Your task to perform on an android device: Open calendar and show me the first week of next month Image 0: 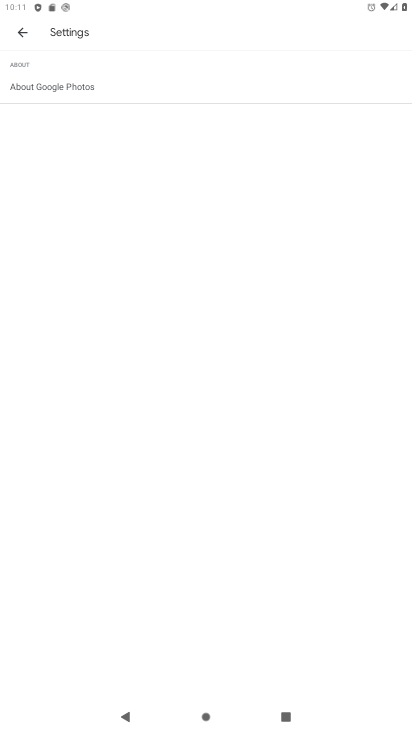
Step 0: press home button
Your task to perform on an android device: Open calendar and show me the first week of next month Image 1: 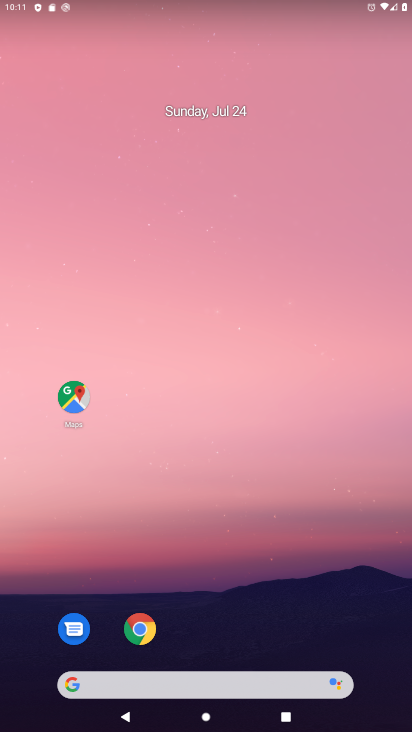
Step 1: drag from (175, 679) to (227, 239)
Your task to perform on an android device: Open calendar and show me the first week of next month Image 2: 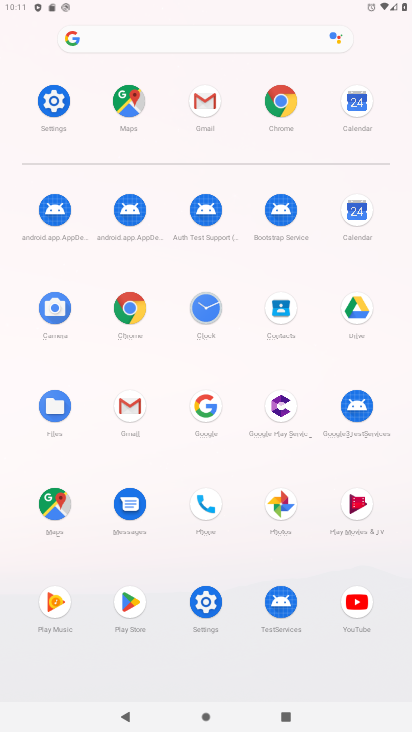
Step 2: click (356, 214)
Your task to perform on an android device: Open calendar and show me the first week of next month Image 3: 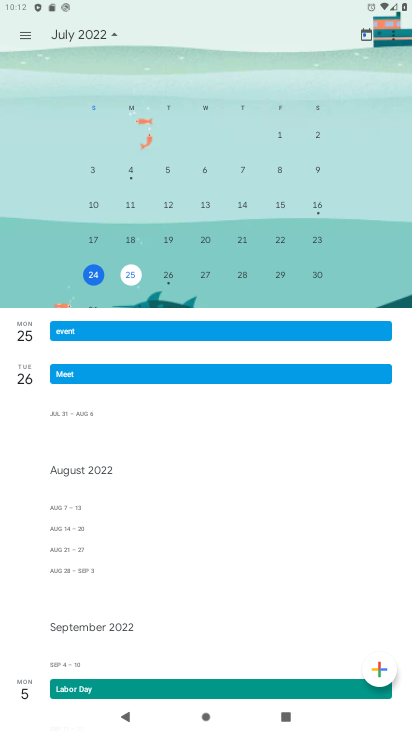
Step 3: drag from (345, 236) to (44, 238)
Your task to perform on an android device: Open calendar and show me the first week of next month Image 4: 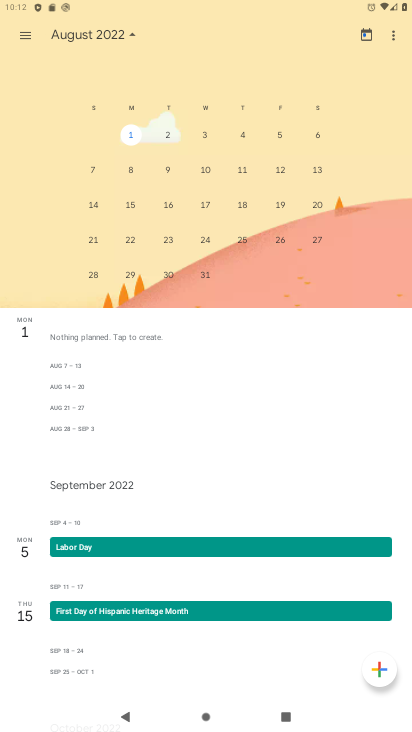
Step 4: click (129, 136)
Your task to perform on an android device: Open calendar and show me the first week of next month Image 5: 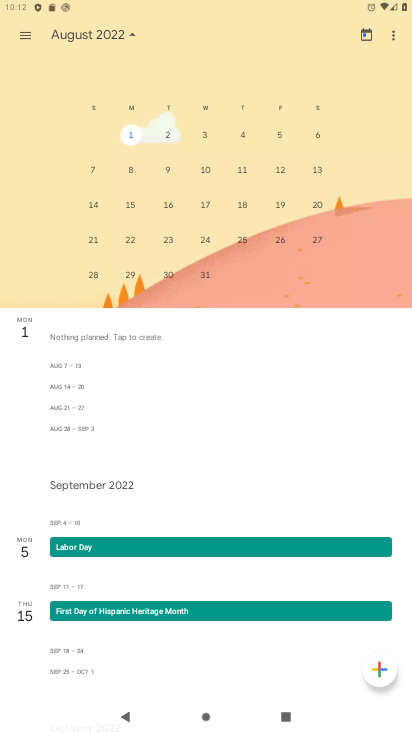
Step 5: click (24, 39)
Your task to perform on an android device: Open calendar and show me the first week of next month Image 6: 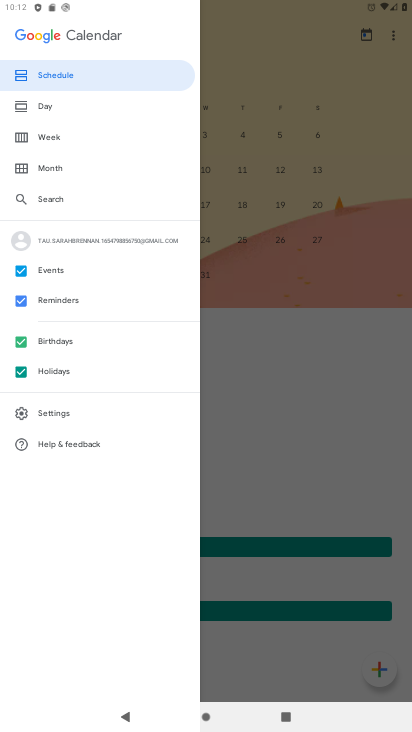
Step 6: click (47, 134)
Your task to perform on an android device: Open calendar and show me the first week of next month Image 7: 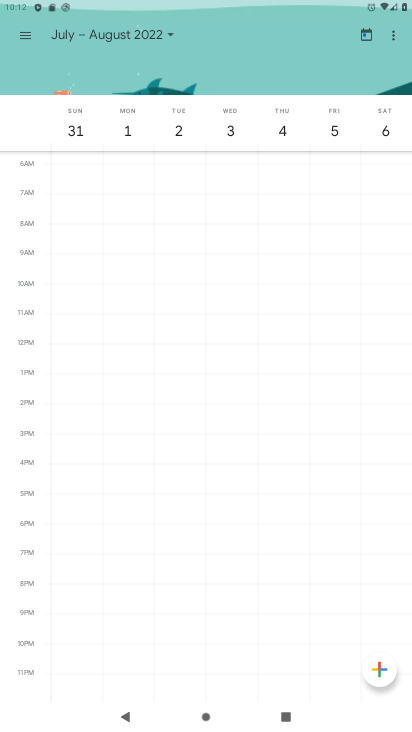
Step 7: task complete